Your task to perform on an android device: clear history in the chrome app Image 0: 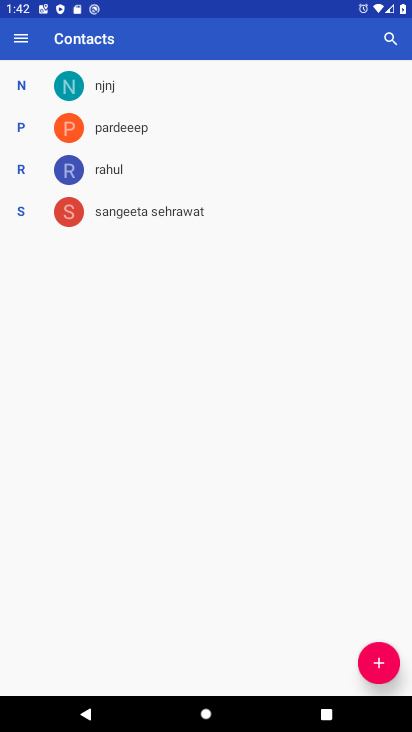
Step 0: press home button
Your task to perform on an android device: clear history in the chrome app Image 1: 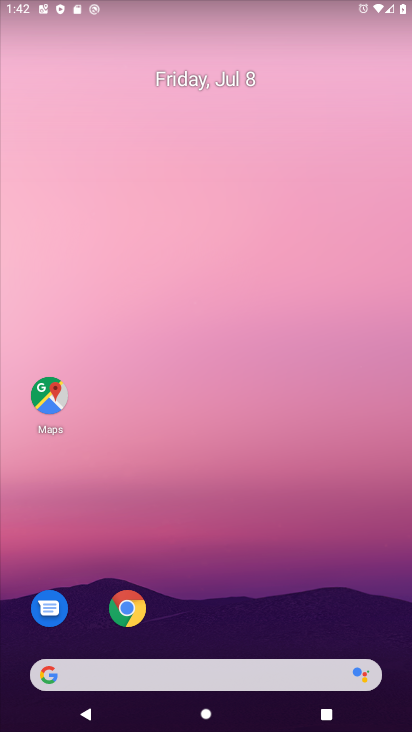
Step 1: click (116, 617)
Your task to perform on an android device: clear history in the chrome app Image 2: 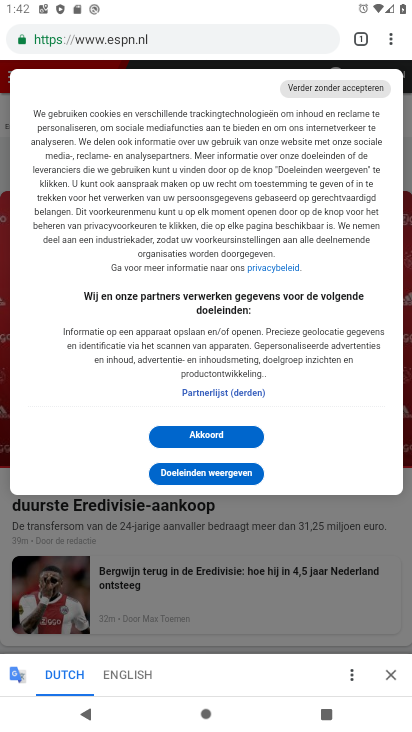
Step 2: click (387, 49)
Your task to perform on an android device: clear history in the chrome app Image 3: 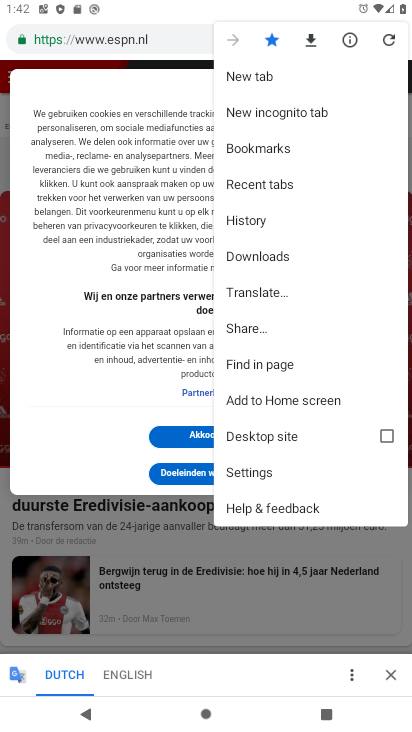
Step 3: click (273, 220)
Your task to perform on an android device: clear history in the chrome app Image 4: 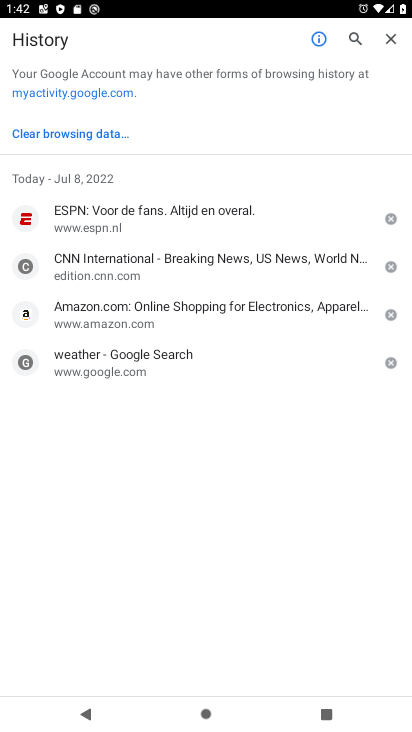
Step 4: click (52, 128)
Your task to perform on an android device: clear history in the chrome app Image 5: 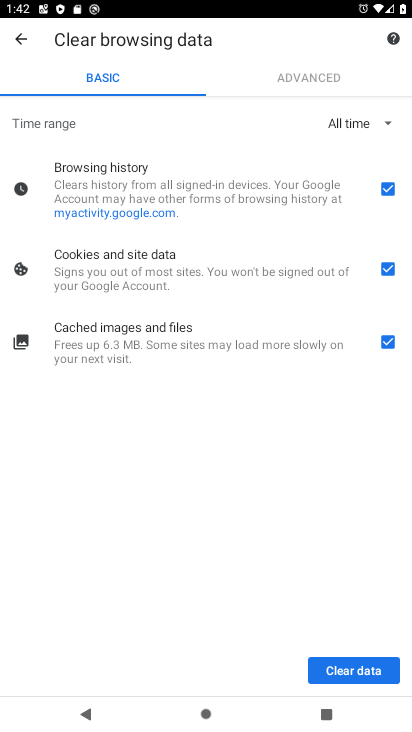
Step 5: click (385, 271)
Your task to perform on an android device: clear history in the chrome app Image 6: 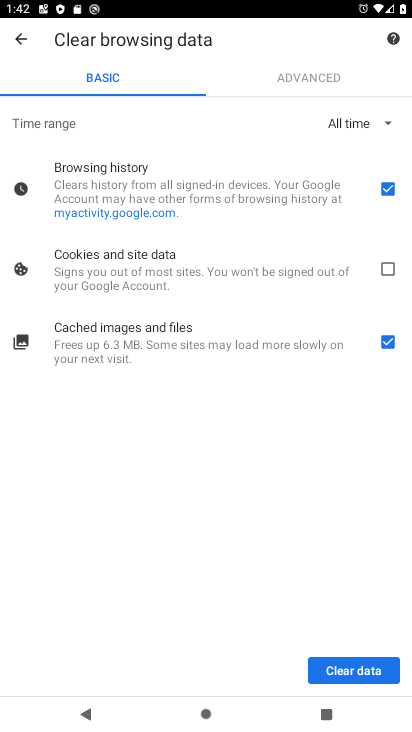
Step 6: click (387, 351)
Your task to perform on an android device: clear history in the chrome app Image 7: 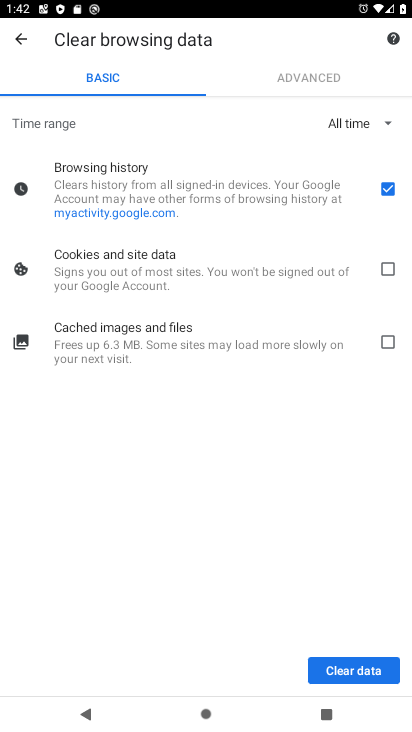
Step 7: click (353, 659)
Your task to perform on an android device: clear history in the chrome app Image 8: 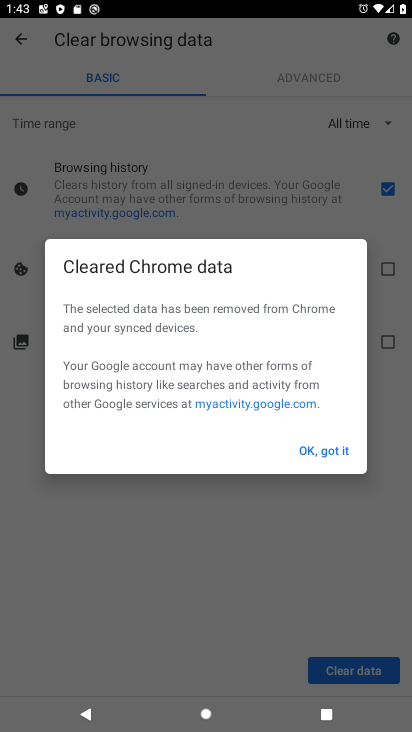
Step 8: click (318, 455)
Your task to perform on an android device: clear history in the chrome app Image 9: 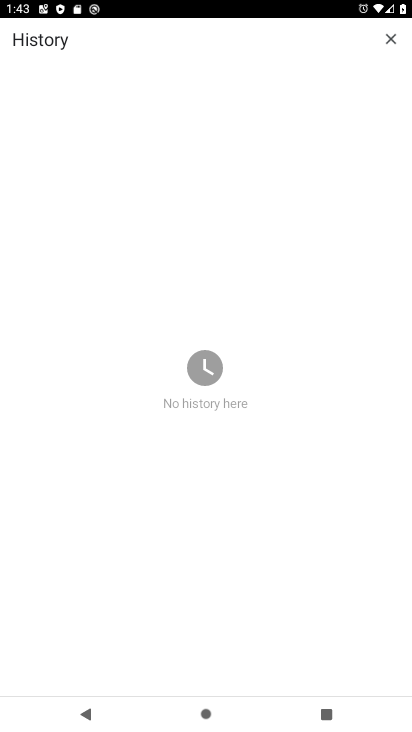
Step 9: task complete